Your task to perform on an android device: change timer sound Image 0: 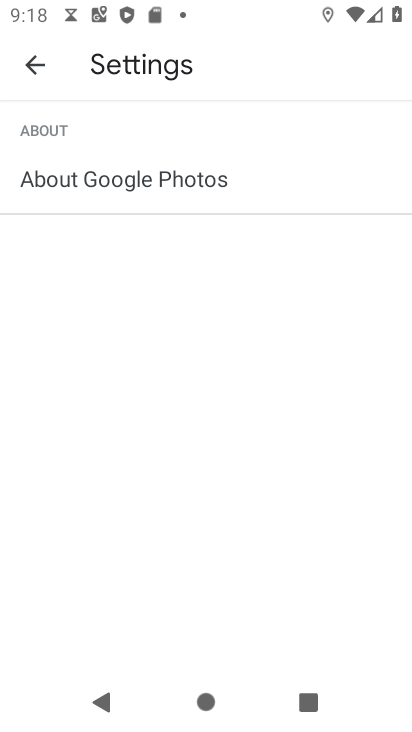
Step 0: press home button
Your task to perform on an android device: change timer sound Image 1: 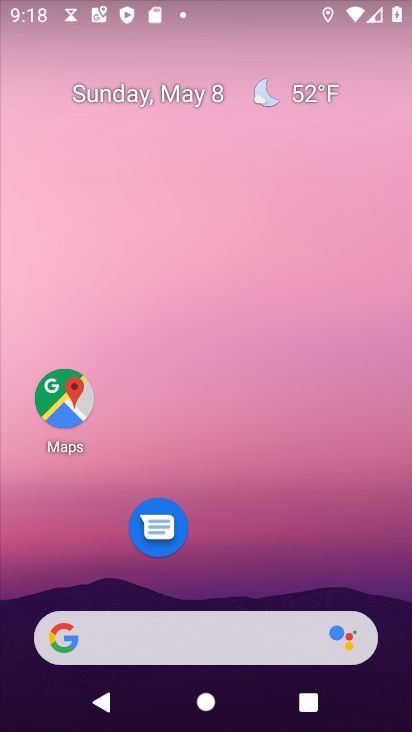
Step 1: drag from (246, 542) to (209, 19)
Your task to perform on an android device: change timer sound Image 2: 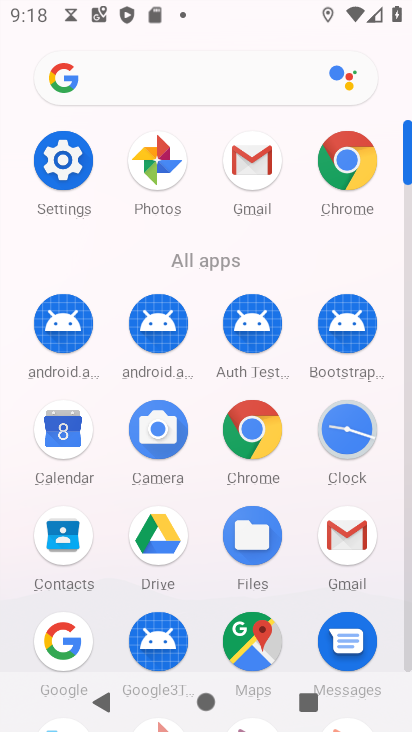
Step 2: click (348, 429)
Your task to perform on an android device: change timer sound Image 3: 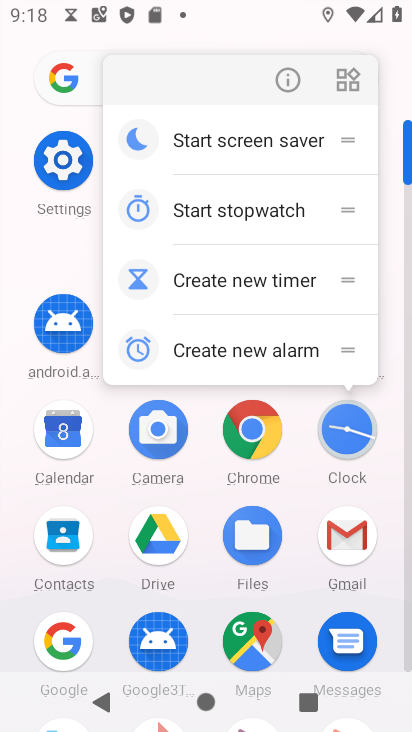
Step 3: click (354, 435)
Your task to perform on an android device: change timer sound Image 4: 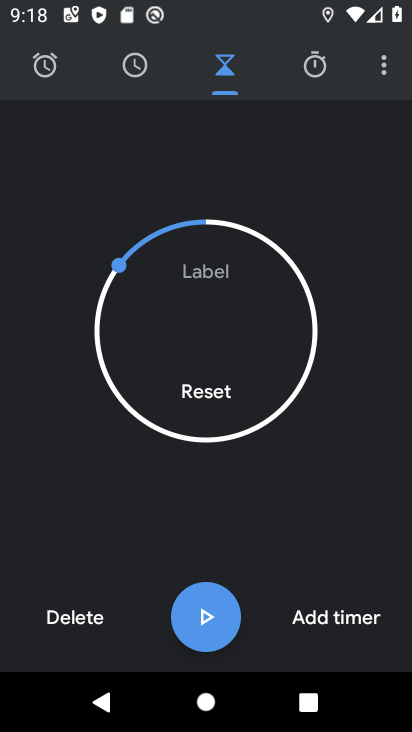
Step 4: click (382, 67)
Your task to perform on an android device: change timer sound Image 5: 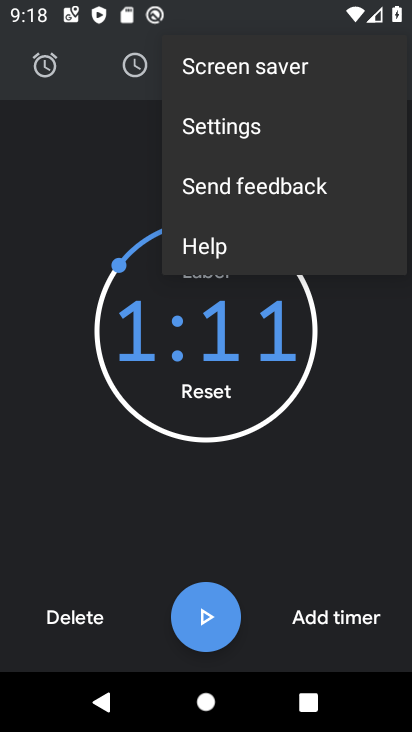
Step 5: click (245, 132)
Your task to perform on an android device: change timer sound Image 6: 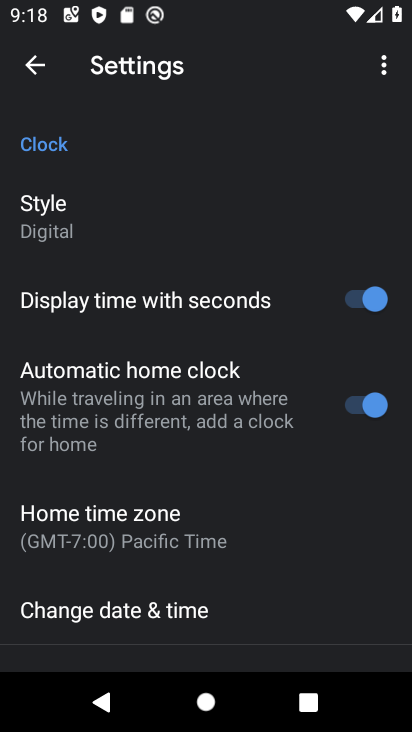
Step 6: drag from (193, 500) to (207, 372)
Your task to perform on an android device: change timer sound Image 7: 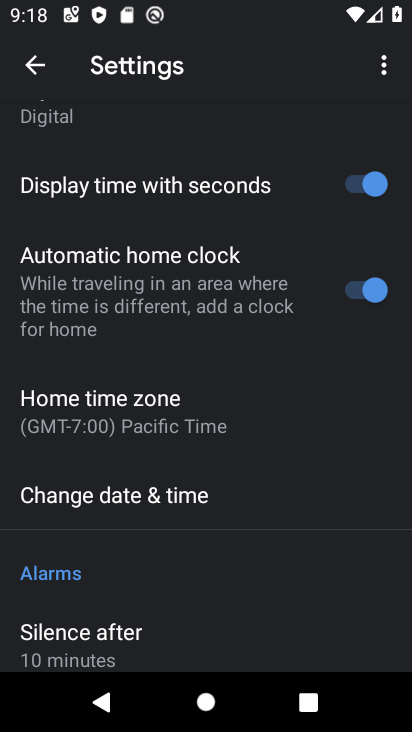
Step 7: drag from (168, 568) to (210, 437)
Your task to perform on an android device: change timer sound Image 8: 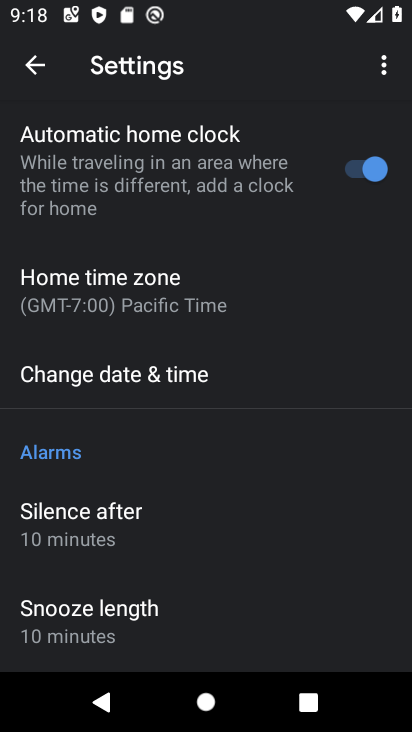
Step 8: drag from (132, 567) to (193, 444)
Your task to perform on an android device: change timer sound Image 9: 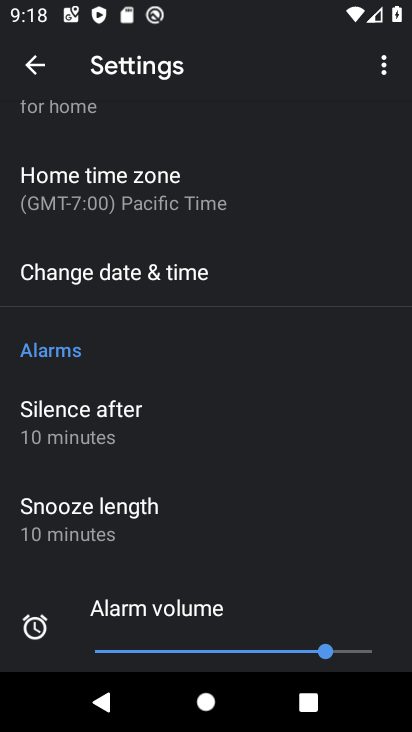
Step 9: drag from (148, 572) to (228, 420)
Your task to perform on an android device: change timer sound Image 10: 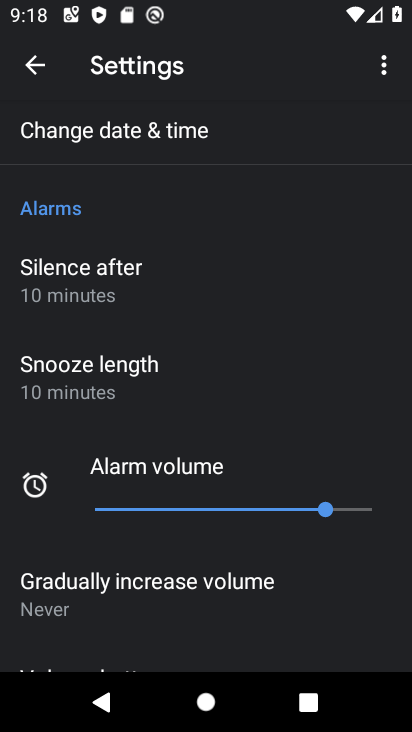
Step 10: drag from (145, 614) to (231, 448)
Your task to perform on an android device: change timer sound Image 11: 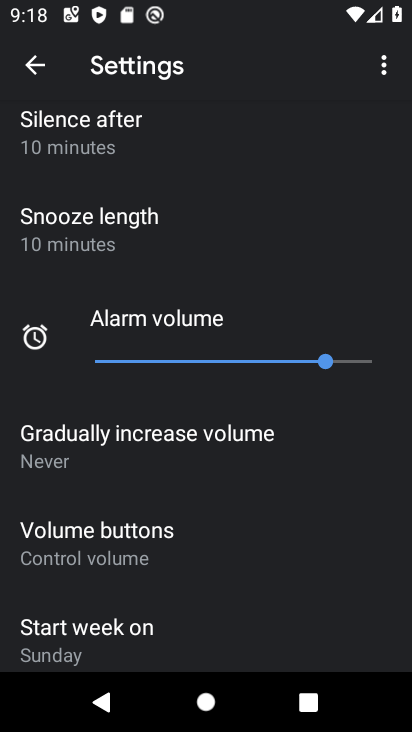
Step 11: drag from (212, 586) to (340, 410)
Your task to perform on an android device: change timer sound Image 12: 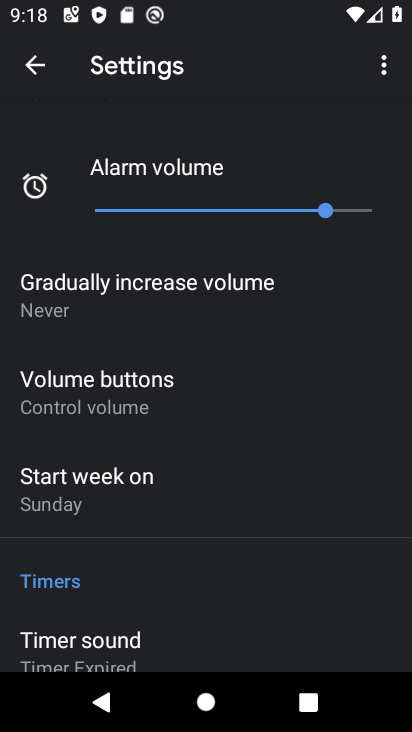
Step 12: drag from (156, 599) to (310, 416)
Your task to perform on an android device: change timer sound Image 13: 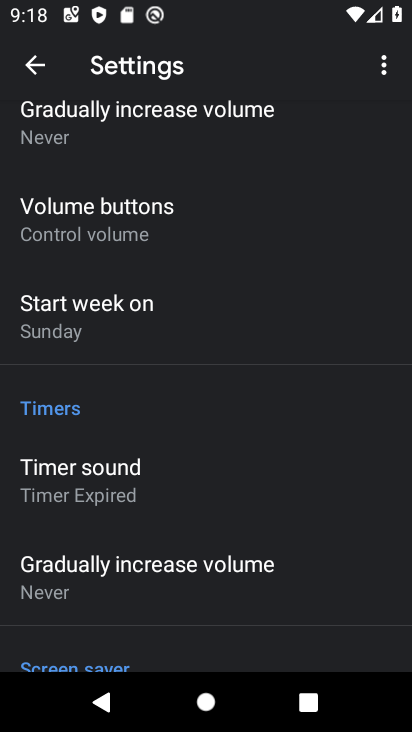
Step 13: click (108, 482)
Your task to perform on an android device: change timer sound Image 14: 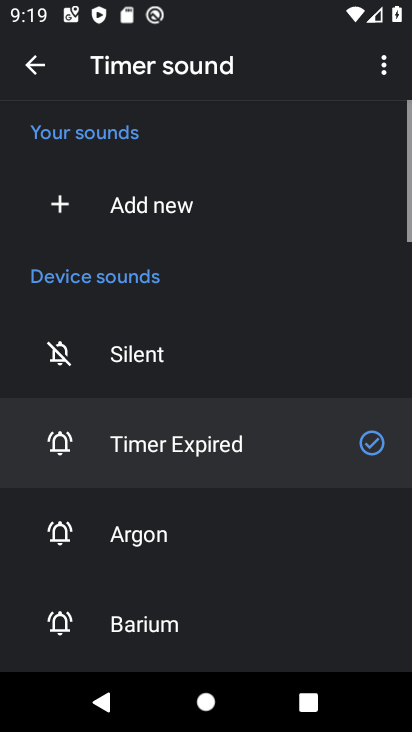
Step 14: drag from (172, 541) to (264, 311)
Your task to perform on an android device: change timer sound Image 15: 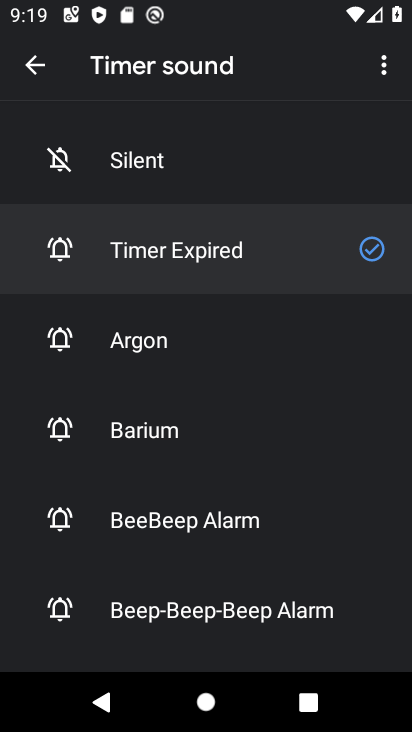
Step 15: click (192, 538)
Your task to perform on an android device: change timer sound Image 16: 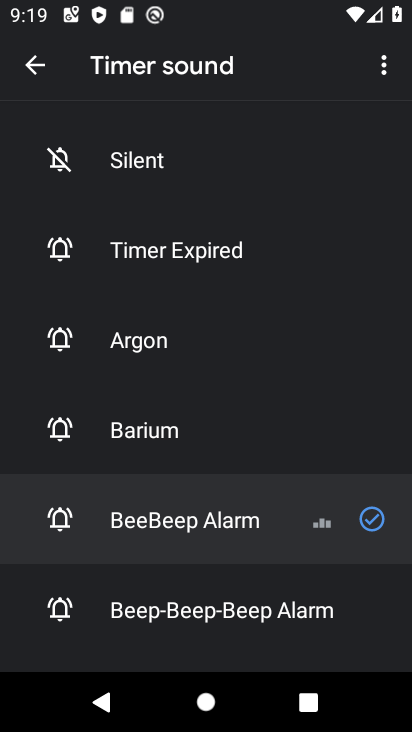
Step 16: task complete